Your task to perform on an android device: Go to Amazon Image 0: 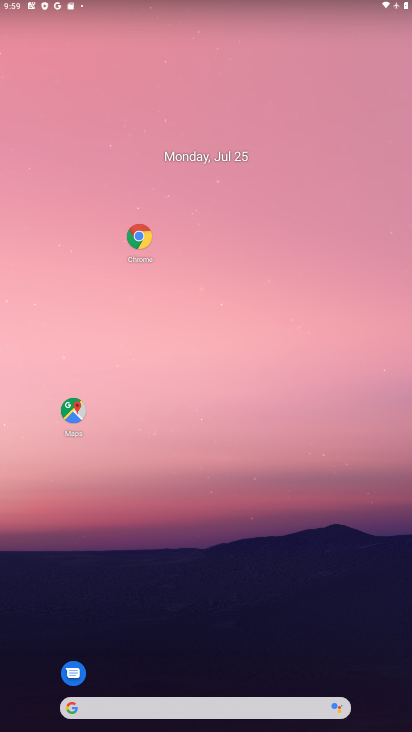
Step 0: click (144, 242)
Your task to perform on an android device: Go to Amazon Image 1: 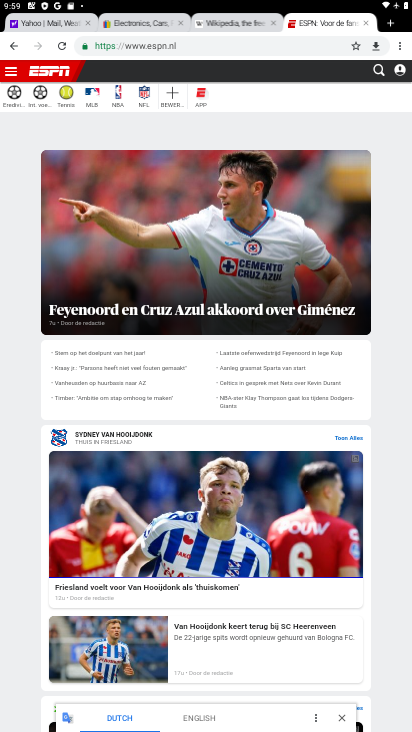
Step 1: click (396, 31)
Your task to perform on an android device: Go to Amazon Image 2: 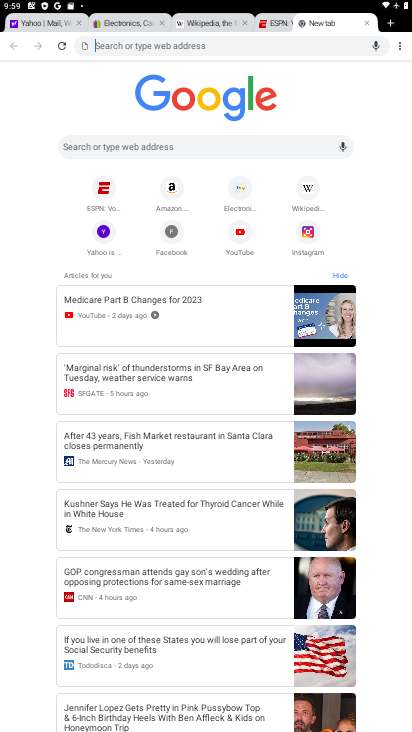
Step 2: click (184, 185)
Your task to perform on an android device: Go to Amazon Image 3: 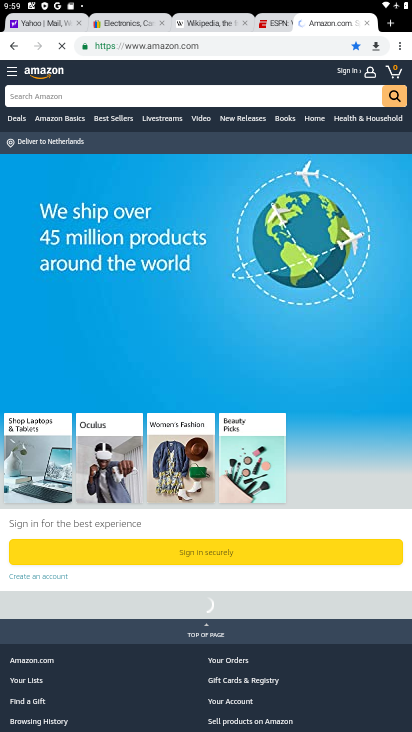
Step 3: task complete